Your task to perform on an android device: set an alarm Image 0: 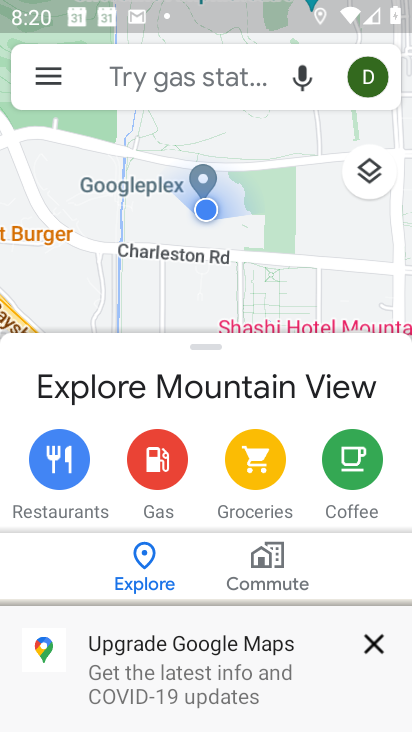
Step 0: press home button
Your task to perform on an android device: set an alarm Image 1: 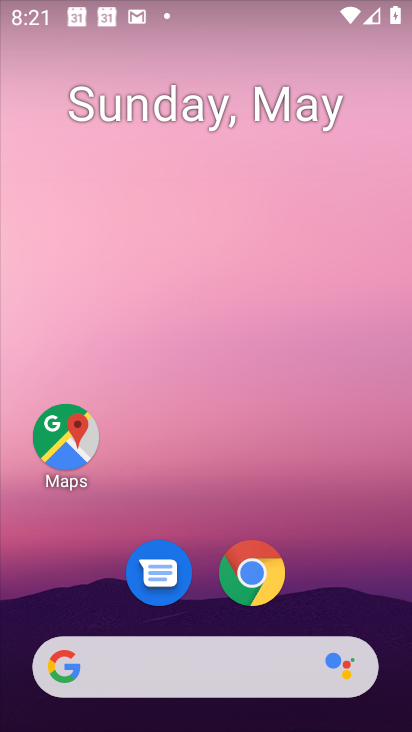
Step 1: drag from (217, 516) to (157, 24)
Your task to perform on an android device: set an alarm Image 2: 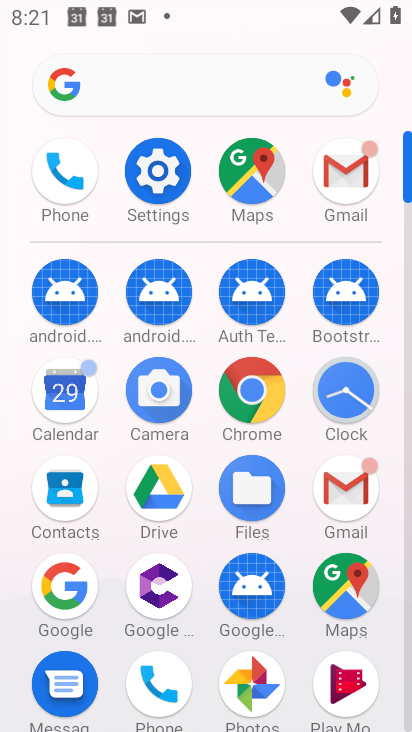
Step 2: click (349, 390)
Your task to perform on an android device: set an alarm Image 3: 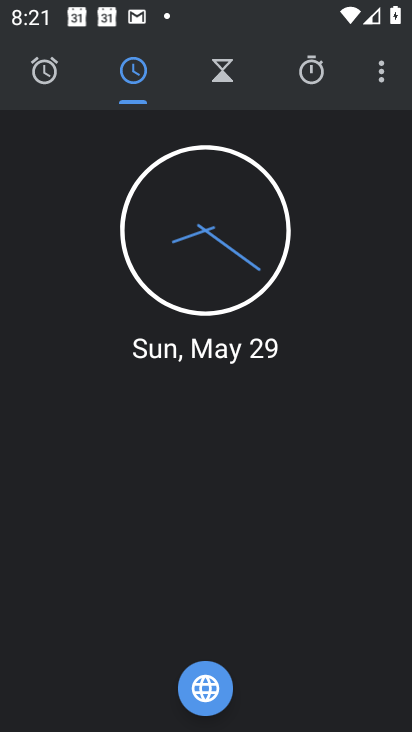
Step 3: click (42, 68)
Your task to perform on an android device: set an alarm Image 4: 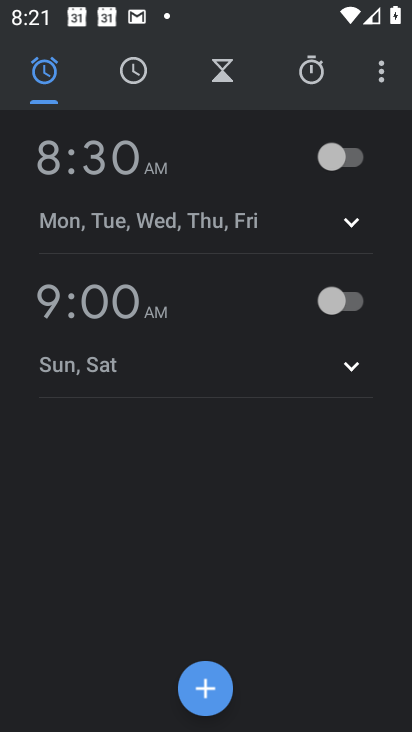
Step 4: click (209, 685)
Your task to perform on an android device: set an alarm Image 5: 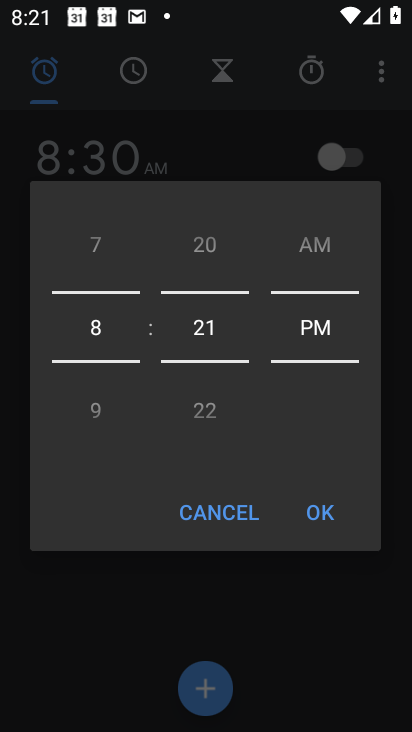
Step 5: drag from (204, 291) to (209, 429)
Your task to perform on an android device: set an alarm Image 6: 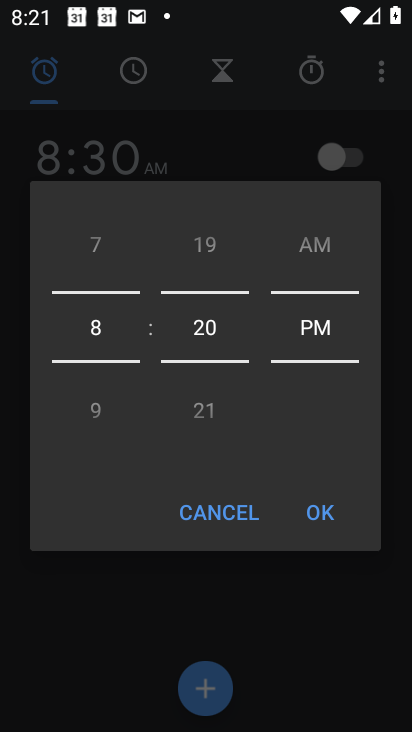
Step 6: drag from (322, 247) to (325, 331)
Your task to perform on an android device: set an alarm Image 7: 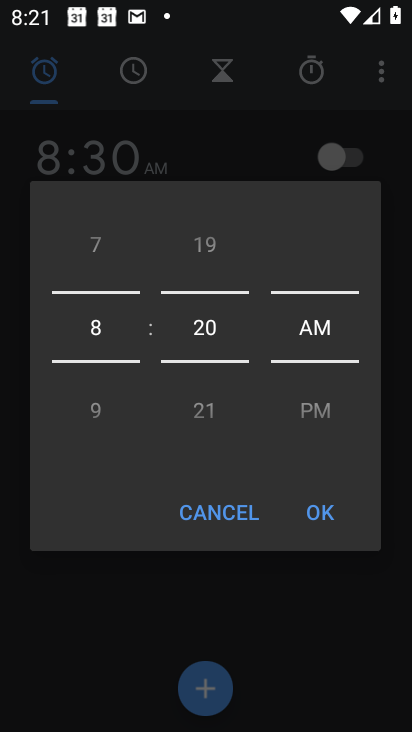
Step 7: click (323, 513)
Your task to perform on an android device: set an alarm Image 8: 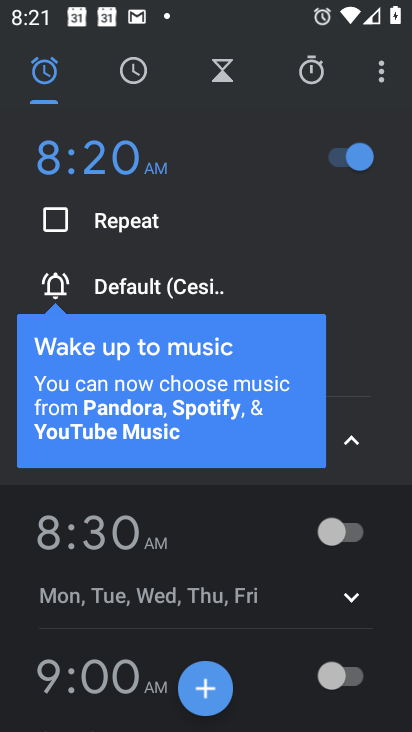
Step 8: task complete